Your task to perform on an android device: Open Google Chrome Image 0: 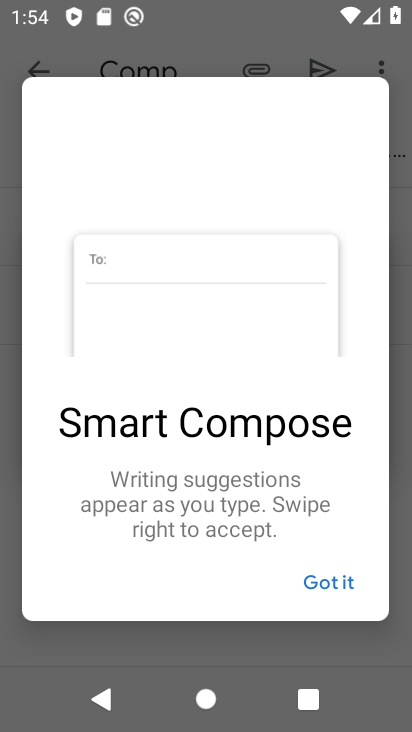
Step 0: press back button
Your task to perform on an android device: Open Google Chrome Image 1: 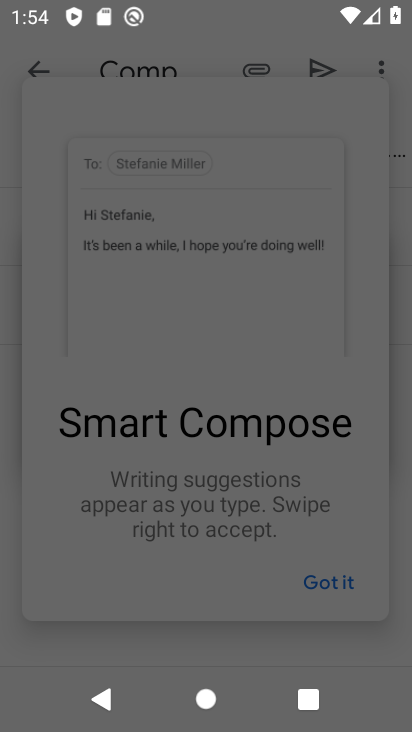
Step 1: press home button
Your task to perform on an android device: Open Google Chrome Image 2: 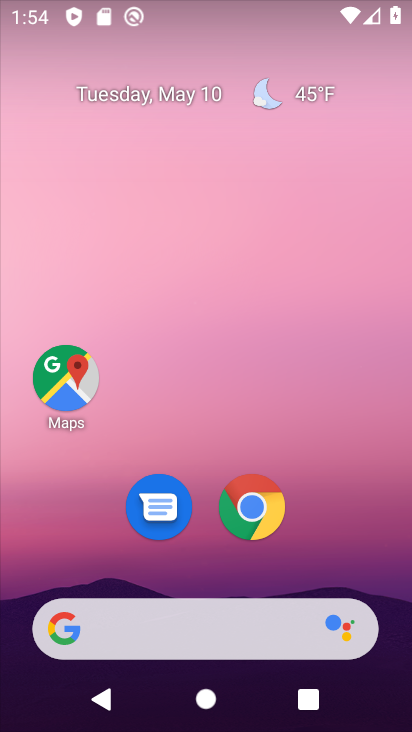
Step 2: click (257, 504)
Your task to perform on an android device: Open Google Chrome Image 3: 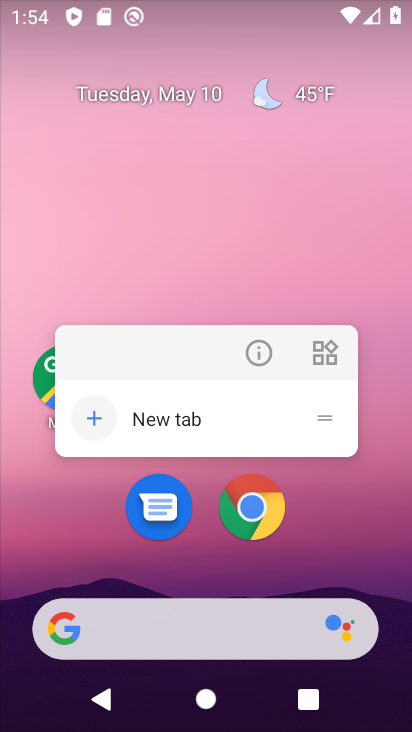
Step 3: click (276, 526)
Your task to perform on an android device: Open Google Chrome Image 4: 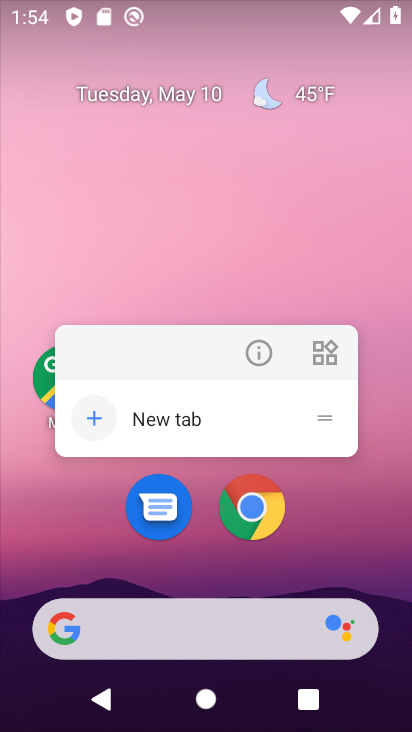
Step 4: click (267, 515)
Your task to perform on an android device: Open Google Chrome Image 5: 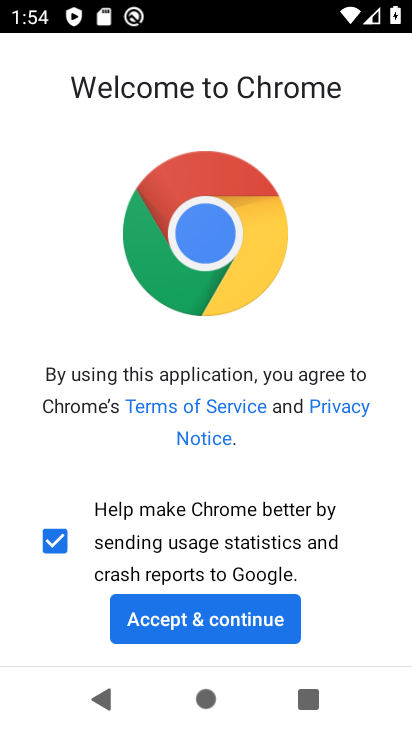
Step 5: click (271, 626)
Your task to perform on an android device: Open Google Chrome Image 6: 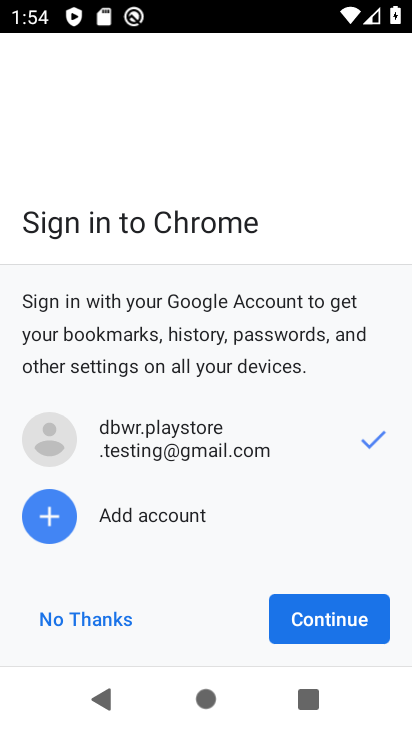
Step 6: click (329, 616)
Your task to perform on an android device: Open Google Chrome Image 7: 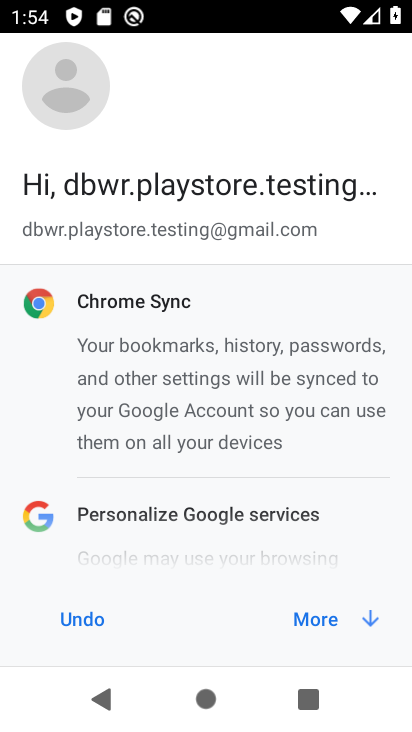
Step 7: click (329, 615)
Your task to perform on an android device: Open Google Chrome Image 8: 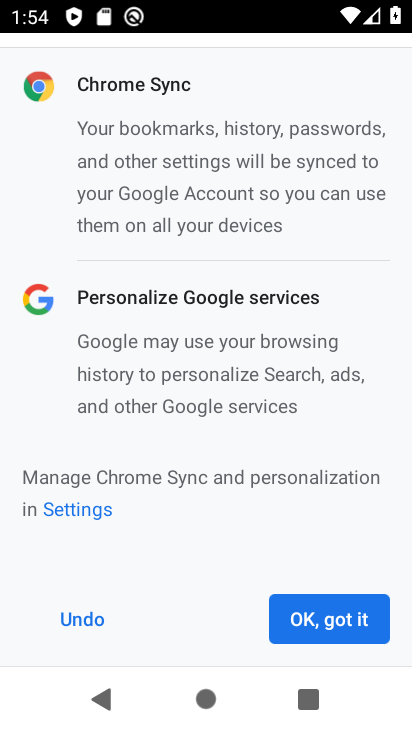
Step 8: click (329, 615)
Your task to perform on an android device: Open Google Chrome Image 9: 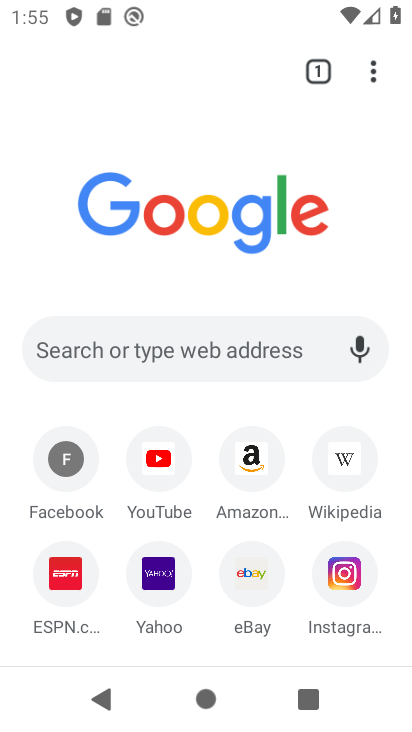
Step 9: task complete